Your task to perform on an android device: turn pop-ups on in chrome Image 0: 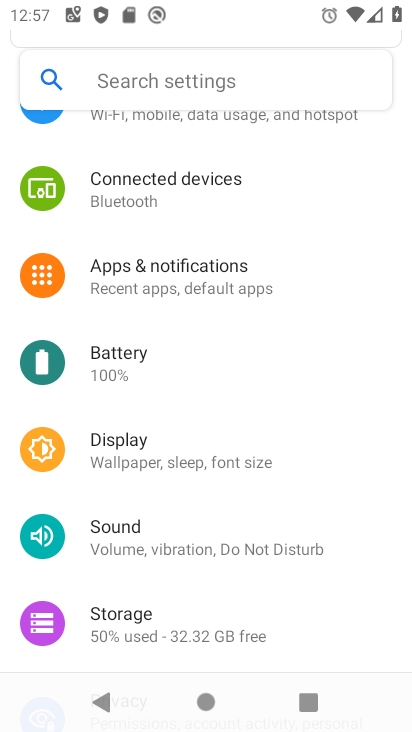
Step 0: drag from (254, 398) to (197, 482)
Your task to perform on an android device: turn pop-ups on in chrome Image 1: 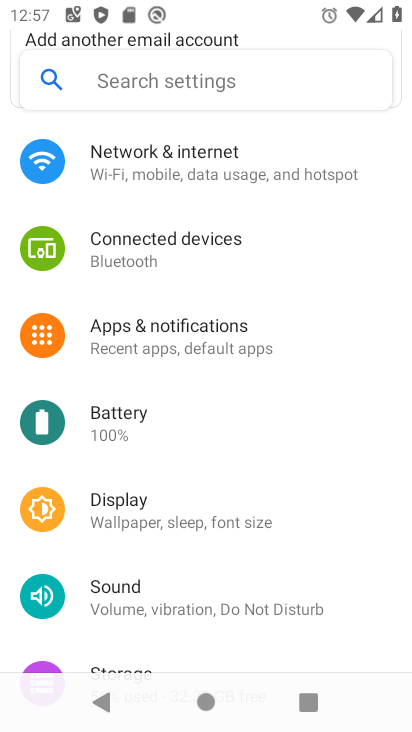
Step 1: press home button
Your task to perform on an android device: turn pop-ups on in chrome Image 2: 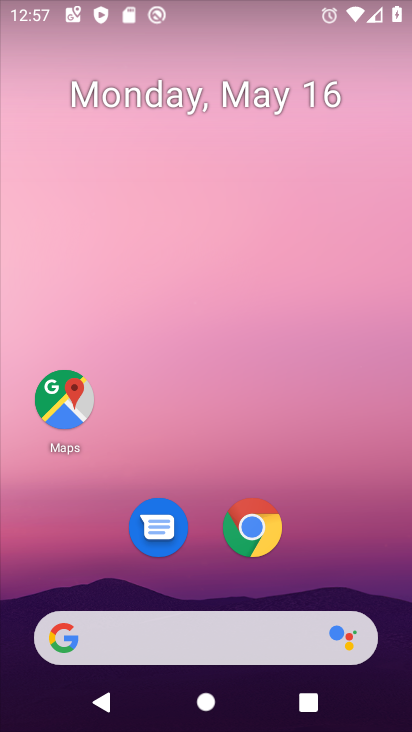
Step 2: click (254, 502)
Your task to perform on an android device: turn pop-ups on in chrome Image 3: 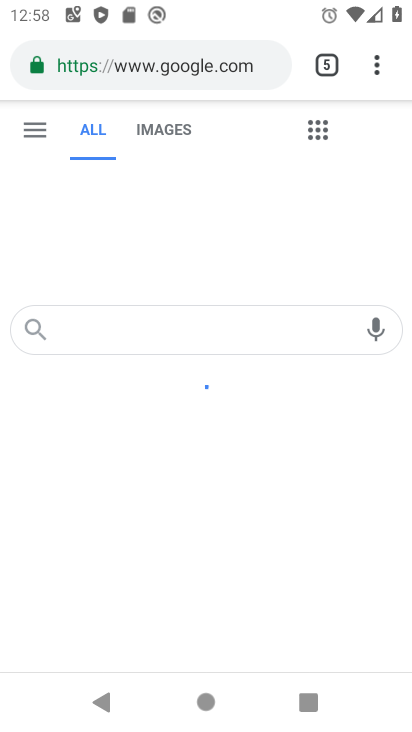
Step 3: click (375, 60)
Your task to perform on an android device: turn pop-ups on in chrome Image 4: 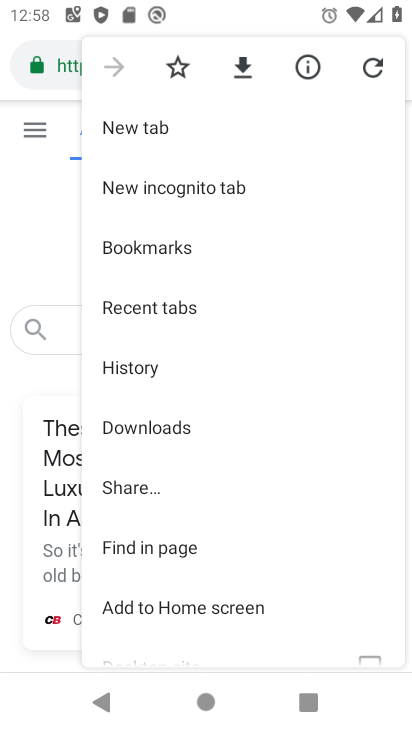
Step 4: drag from (197, 469) to (199, 320)
Your task to perform on an android device: turn pop-ups on in chrome Image 5: 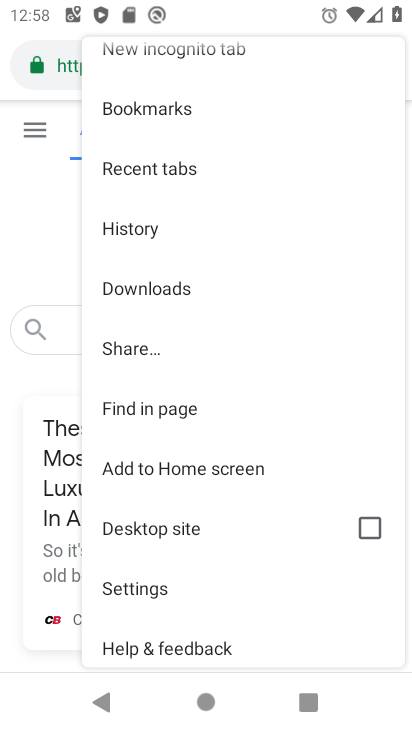
Step 5: click (193, 589)
Your task to perform on an android device: turn pop-ups on in chrome Image 6: 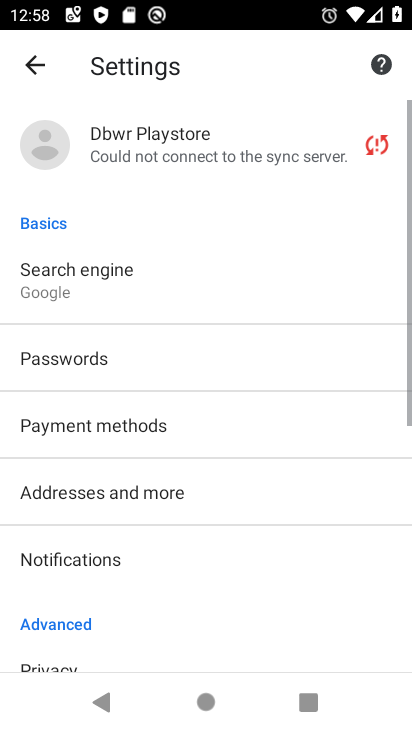
Step 6: drag from (193, 589) to (172, 252)
Your task to perform on an android device: turn pop-ups on in chrome Image 7: 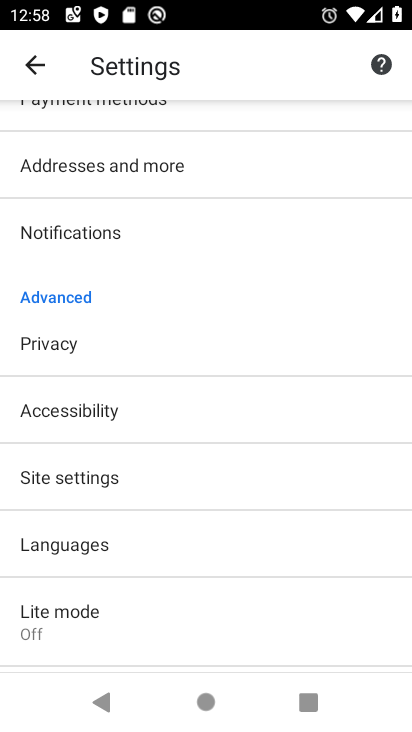
Step 7: click (181, 482)
Your task to perform on an android device: turn pop-ups on in chrome Image 8: 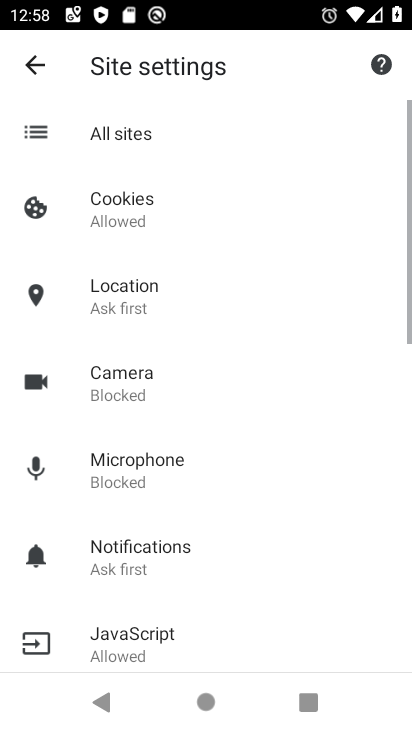
Step 8: drag from (153, 512) to (155, 275)
Your task to perform on an android device: turn pop-ups on in chrome Image 9: 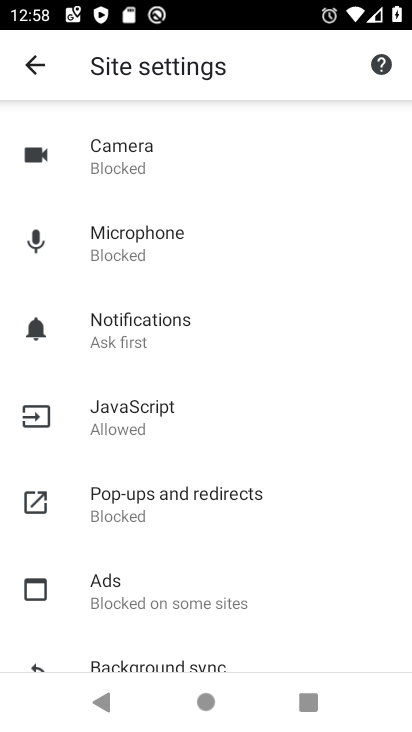
Step 9: drag from (155, 562) to (149, 359)
Your task to perform on an android device: turn pop-ups on in chrome Image 10: 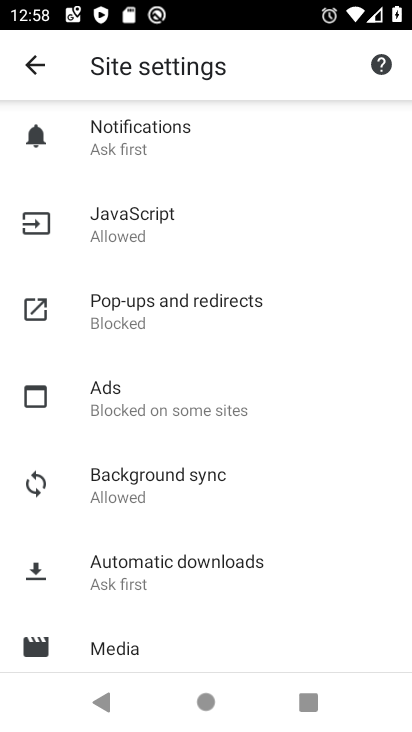
Step 10: click (148, 332)
Your task to perform on an android device: turn pop-ups on in chrome Image 11: 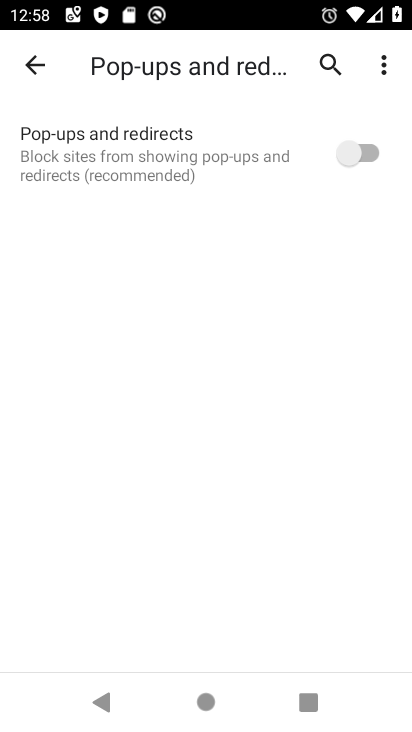
Step 11: click (328, 155)
Your task to perform on an android device: turn pop-ups on in chrome Image 12: 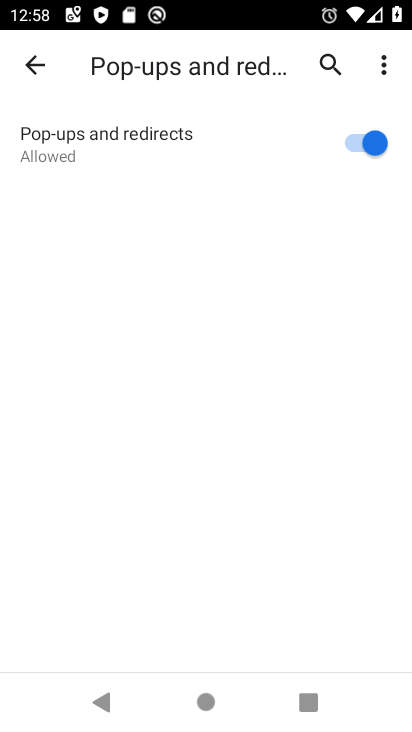
Step 12: task complete